Your task to perform on an android device: Open Android settings Image 0: 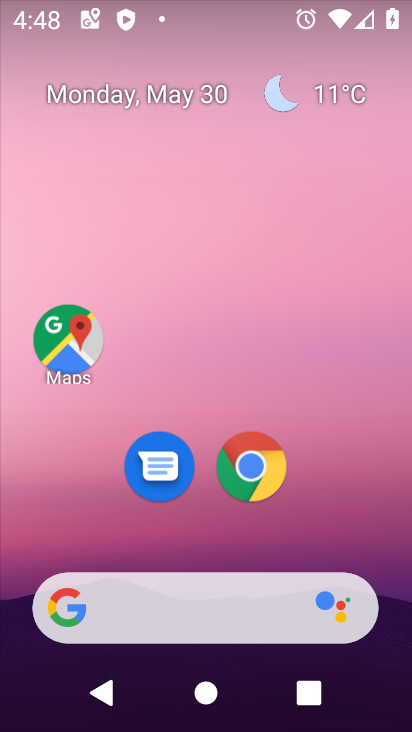
Step 0: drag from (316, 508) to (308, 63)
Your task to perform on an android device: Open Android settings Image 1: 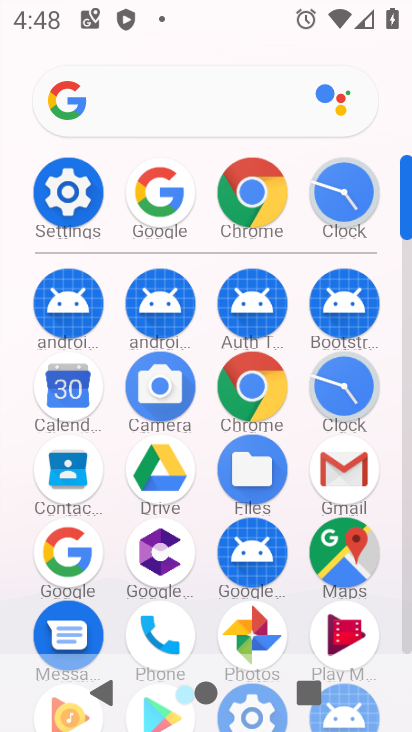
Step 1: click (54, 184)
Your task to perform on an android device: Open Android settings Image 2: 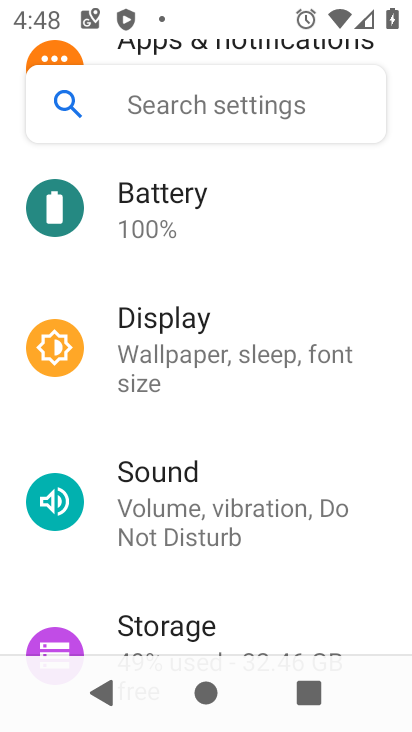
Step 2: task complete